Your task to perform on an android device: change the clock display to analog Image 0: 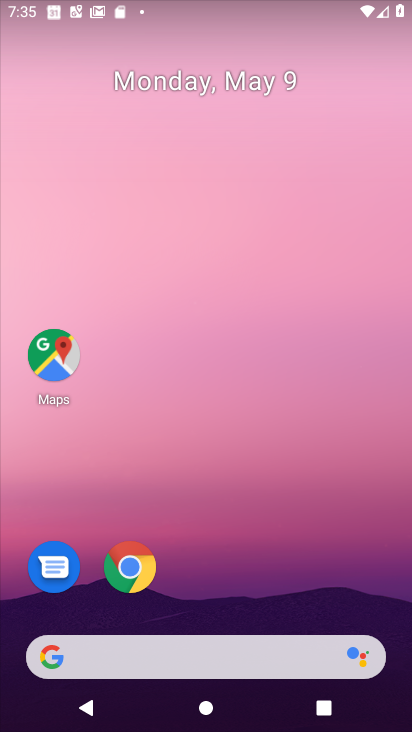
Step 0: click (280, 193)
Your task to perform on an android device: change the clock display to analog Image 1: 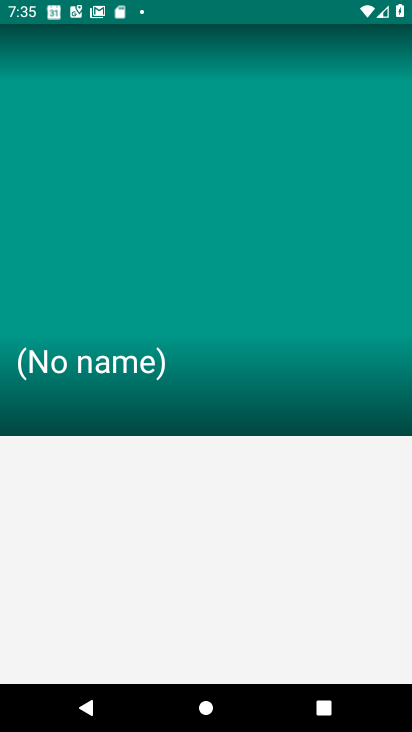
Step 1: drag from (198, 606) to (343, 125)
Your task to perform on an android device: change the clock display to analog Image 2: 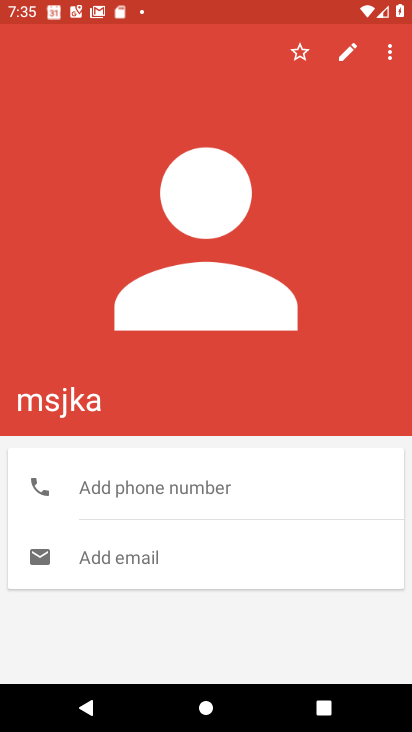
Step 2: press home button
Your task to perform on an android device: change the clock display to analog Image 3: 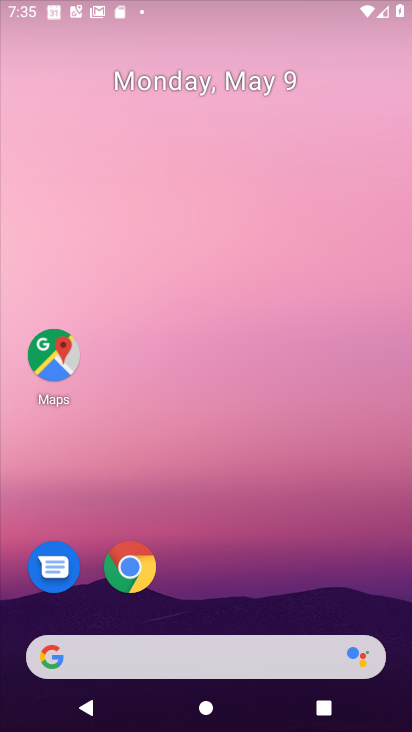
Step 3: drag from (196, 612) to (292, 178)
Your task to perform on an android device: change the clock display to analog Image 4: 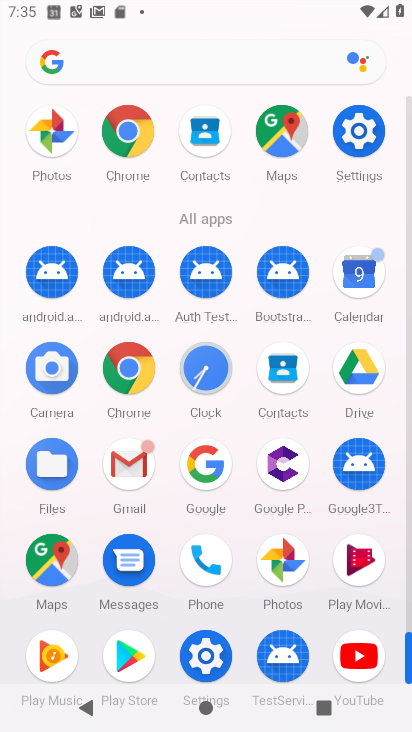
Step 4: click (196, 376)
Your task to perform on an android device: change the clock display to analog Image 5: 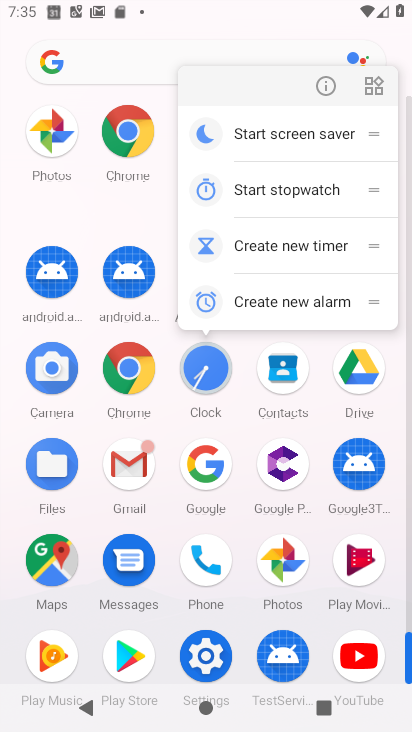
Step 5: click (321, 88)
Your task to perform on an android device: change the clock display to analog Image 6: 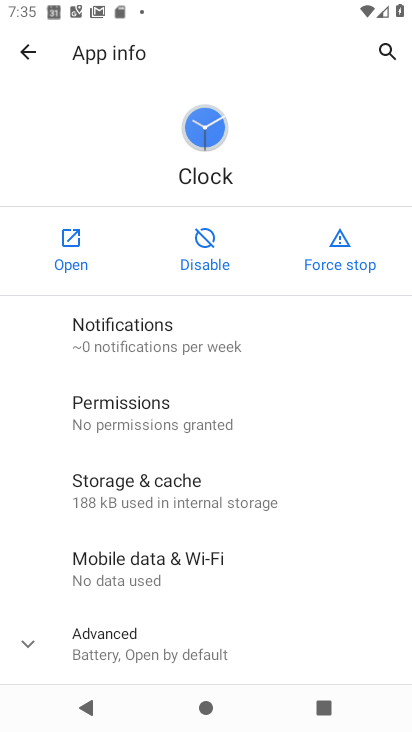
Step 6: click (54, 255)
Your task to perform on an android device: change the clock display to analog Image 7: 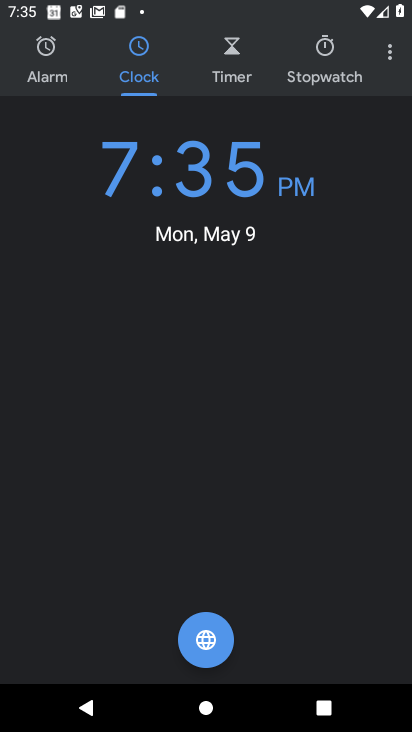
Step 7: click (389, 52)
Your task to perform on an android device: change the clock display to analog Image 8: 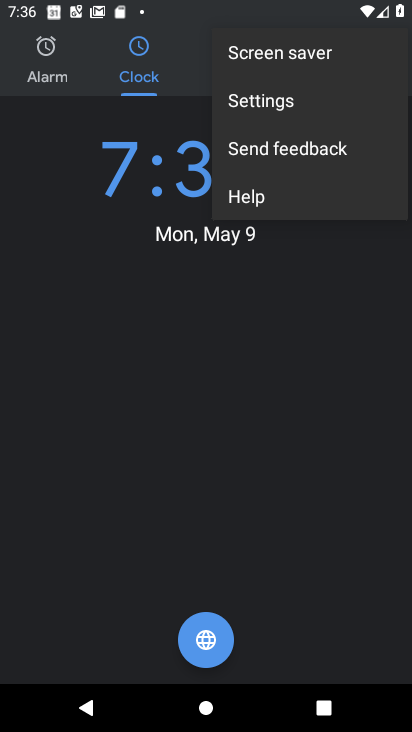
Step 8: click (240, 102)
Your task to perform on an android device: change the clock display to analog Image 9: 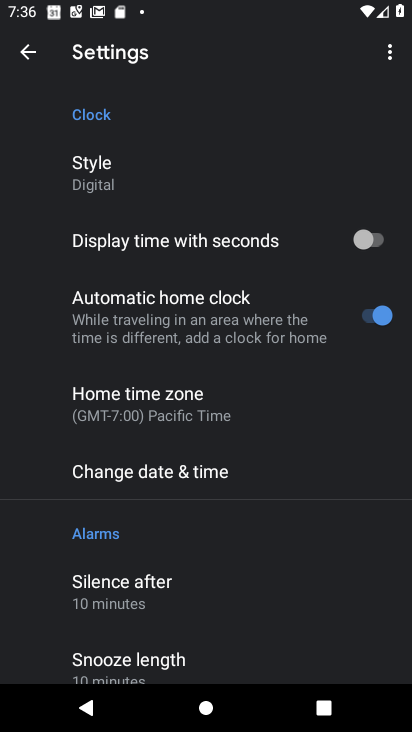
Step 9: click (154, 185)
Your task to perform on an android device: change the clock display to analog Image 10: 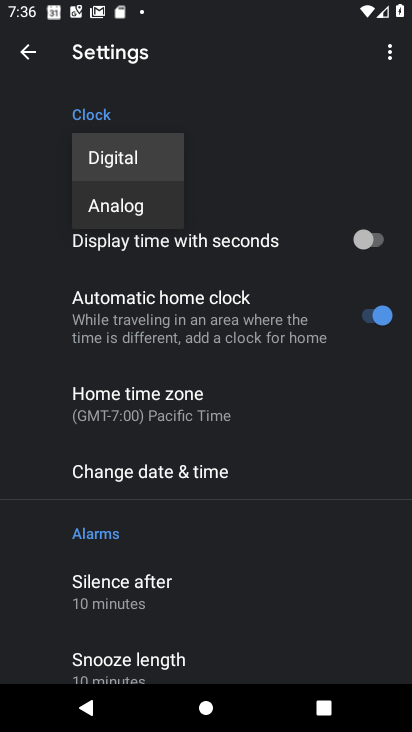
Step 10: click (132, 182)
Your task to perform on an android device: change the clock display to analog Image 11: 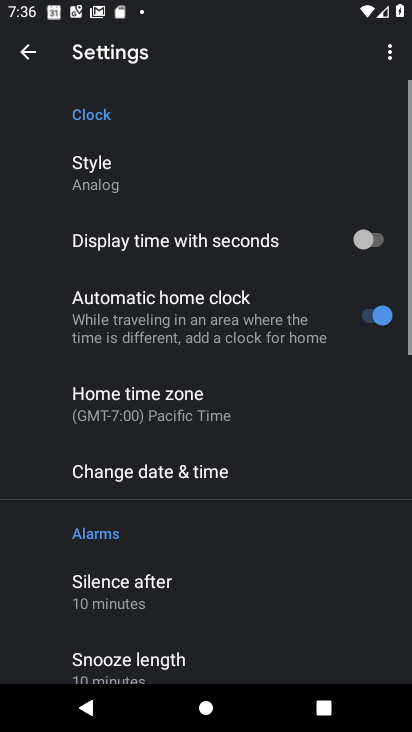
Step 11: click (99, 197)
Your task to perform on an android device: change the clock display to analog Image 12: 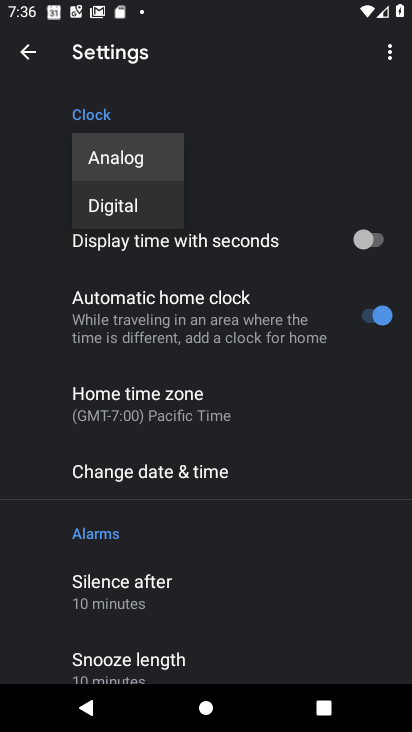
Step 12: task complete